Your task to perform on an android device: Open Chrome and go to the settings page Image 0: 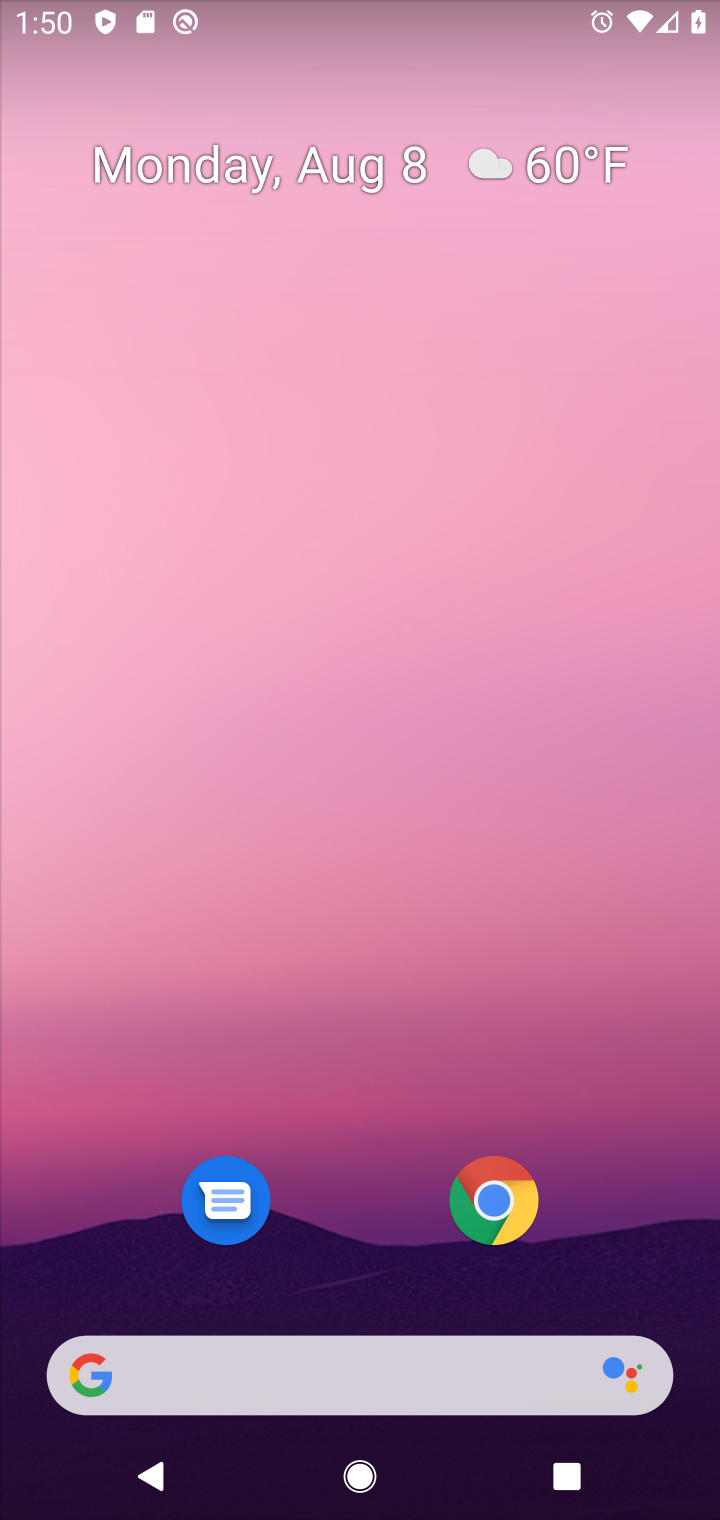
Step 0: click (492, 1191)
Your task to perform on an android device: Open Chrome and go to the settings page Image 1: 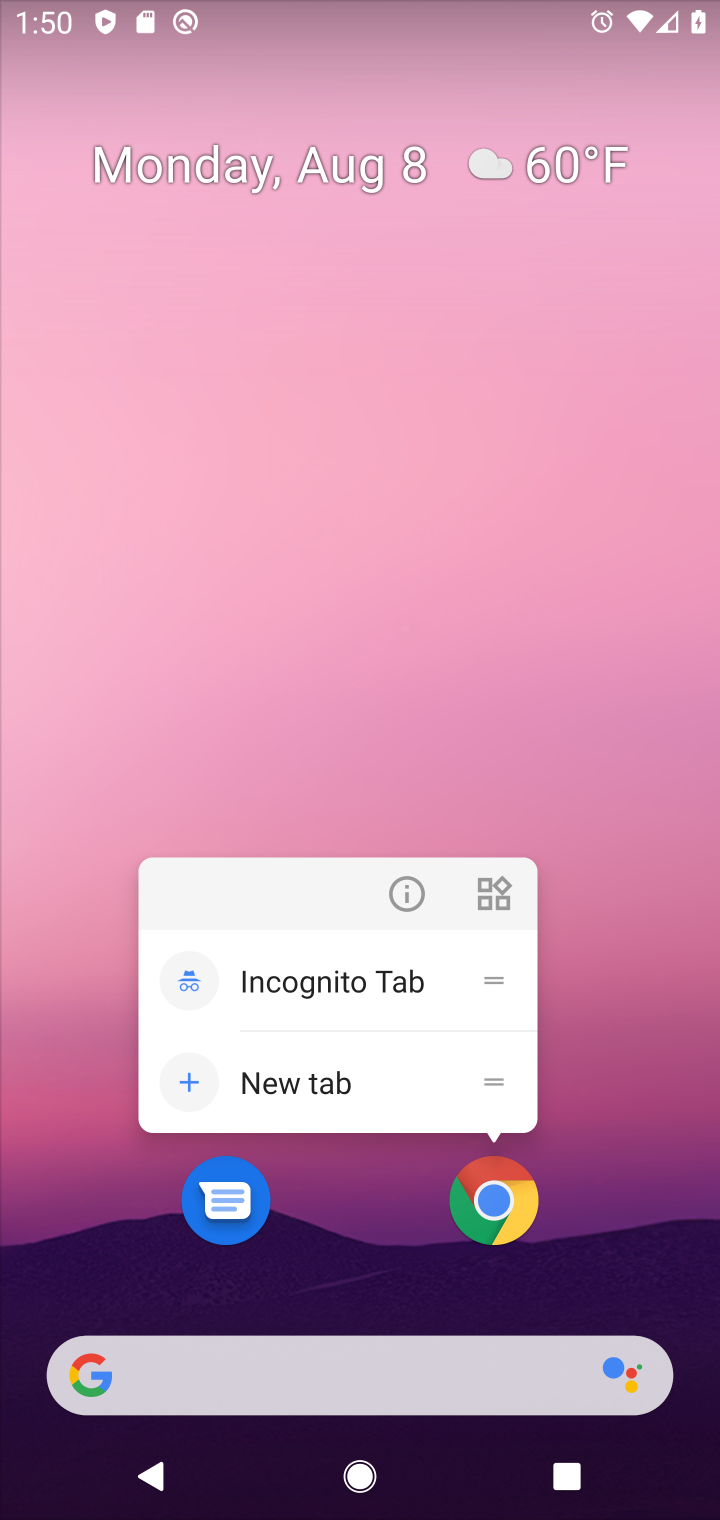
Step 1: click (583, 1266)
Your task to perform on an android device: Open Chrome and go to the settings page Image 2: 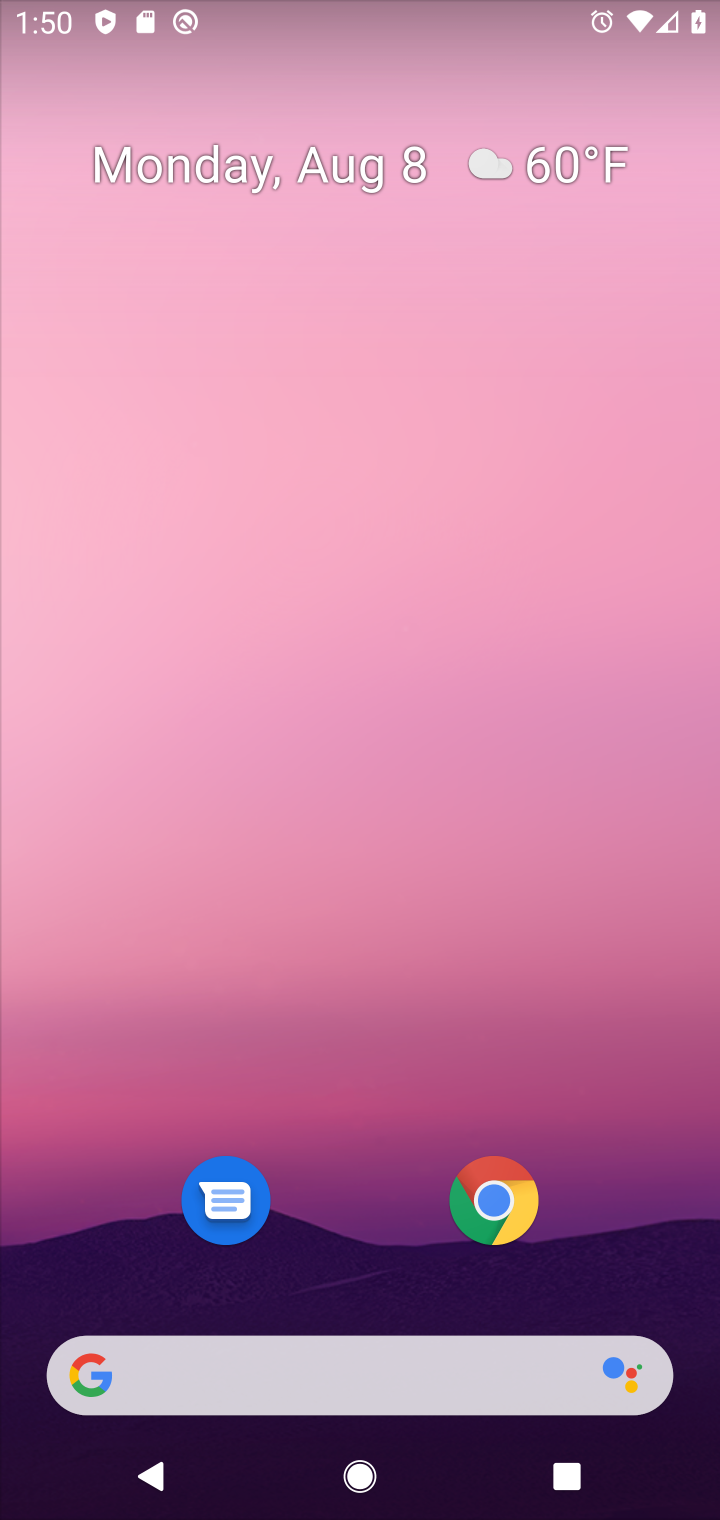
Step 2: drag from (633, 1280) to (580, 260)
Your task to perform on an android device: Open Chrome and go to the settings page Image 3: 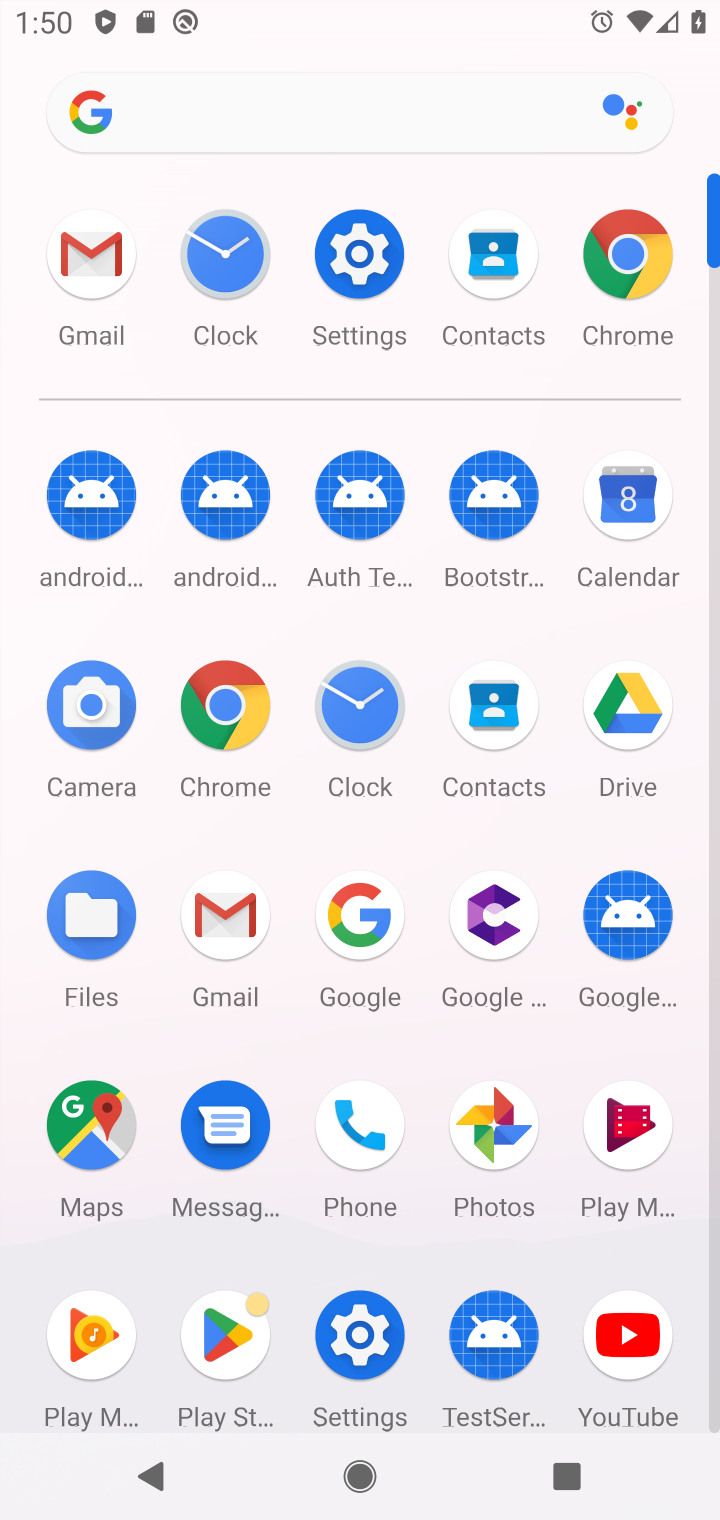
Step 3: click (622, 264)
Your task to perform on an android device: Open Chrome and go to the settings page Image 4: 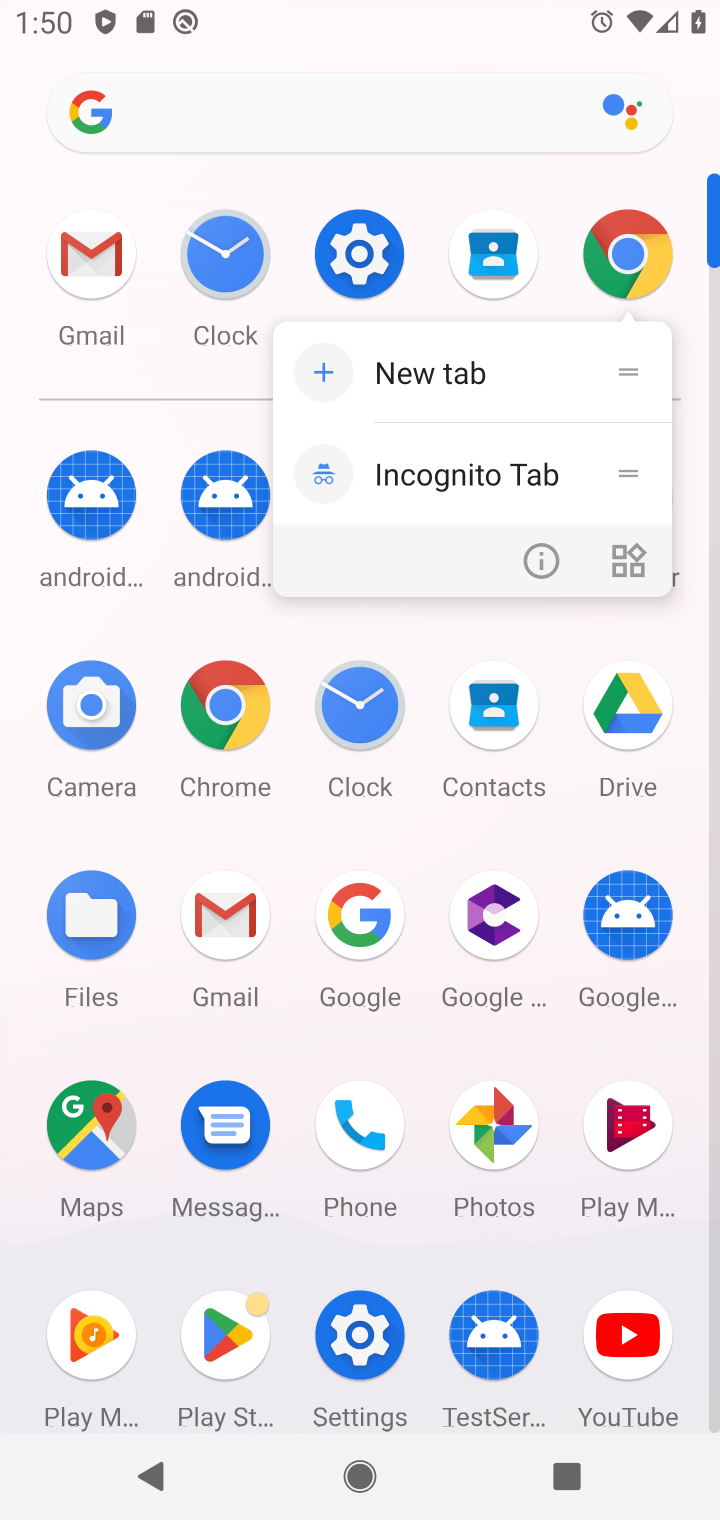
Step 4: click (626, 262)
Your task to perform on an android device: Open Chrome and go to the settings page Image 5: 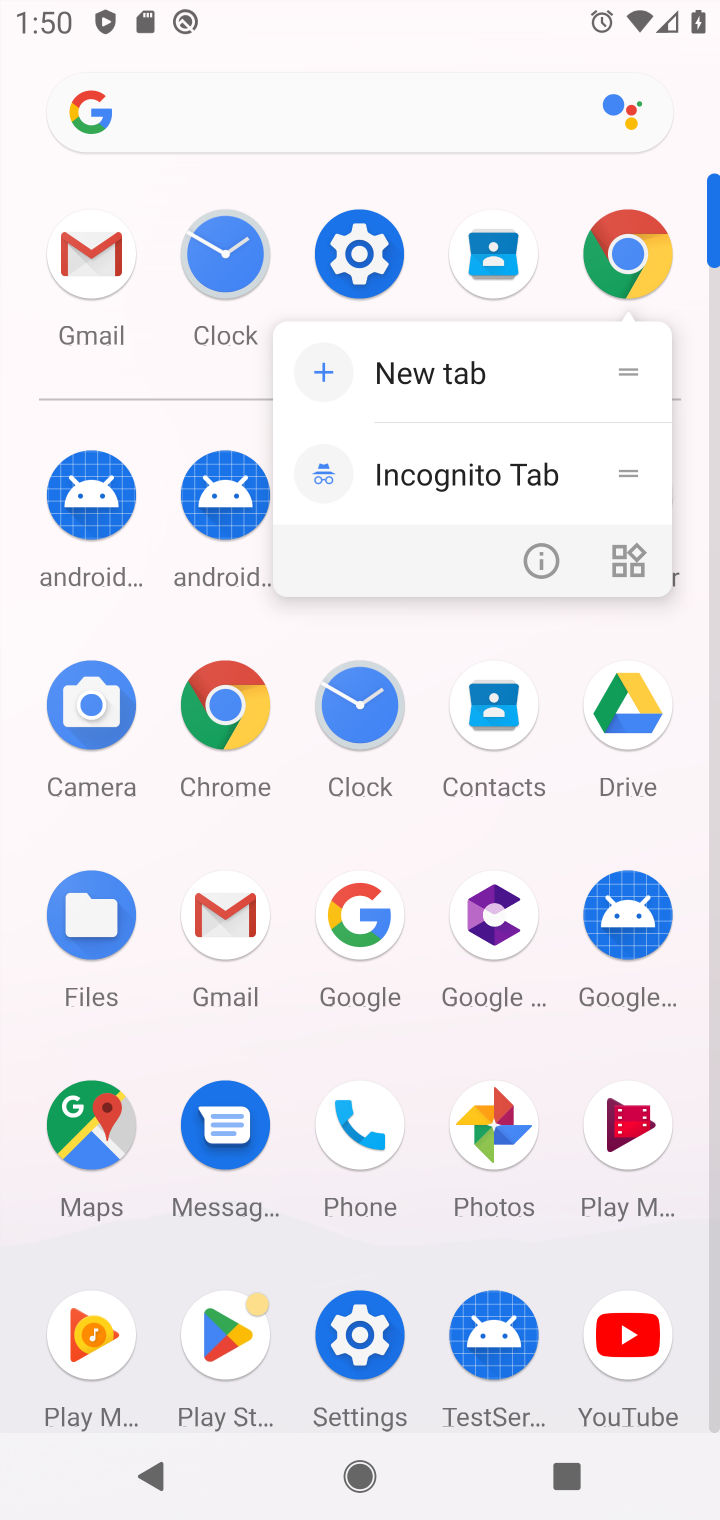
Step 5: click (233, 719)
Your task to perform on an android device: Open Chrome and go to the settings page Image 6: 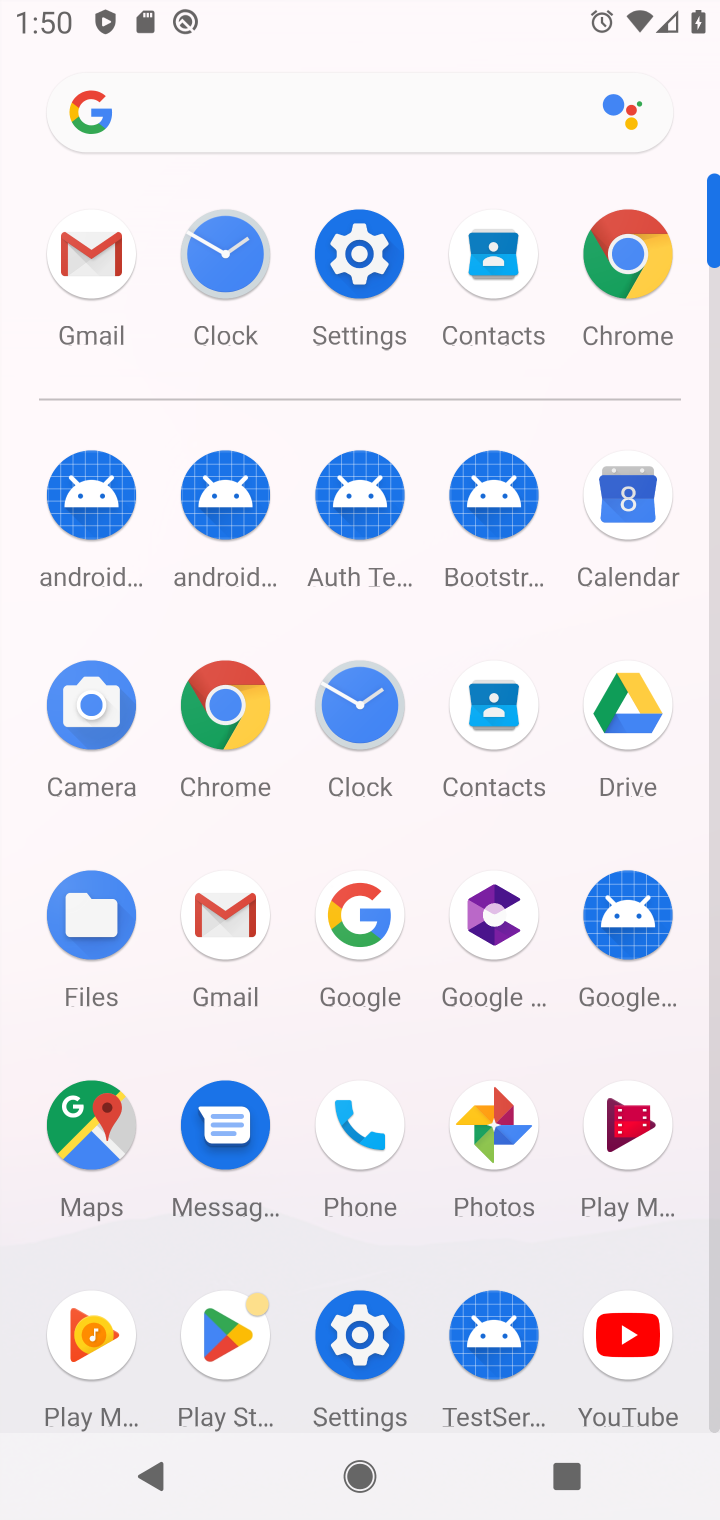
Step 6: click (232, 706)
Your task to perform on an android device: Open Chrome and go to the settings page Image 7: 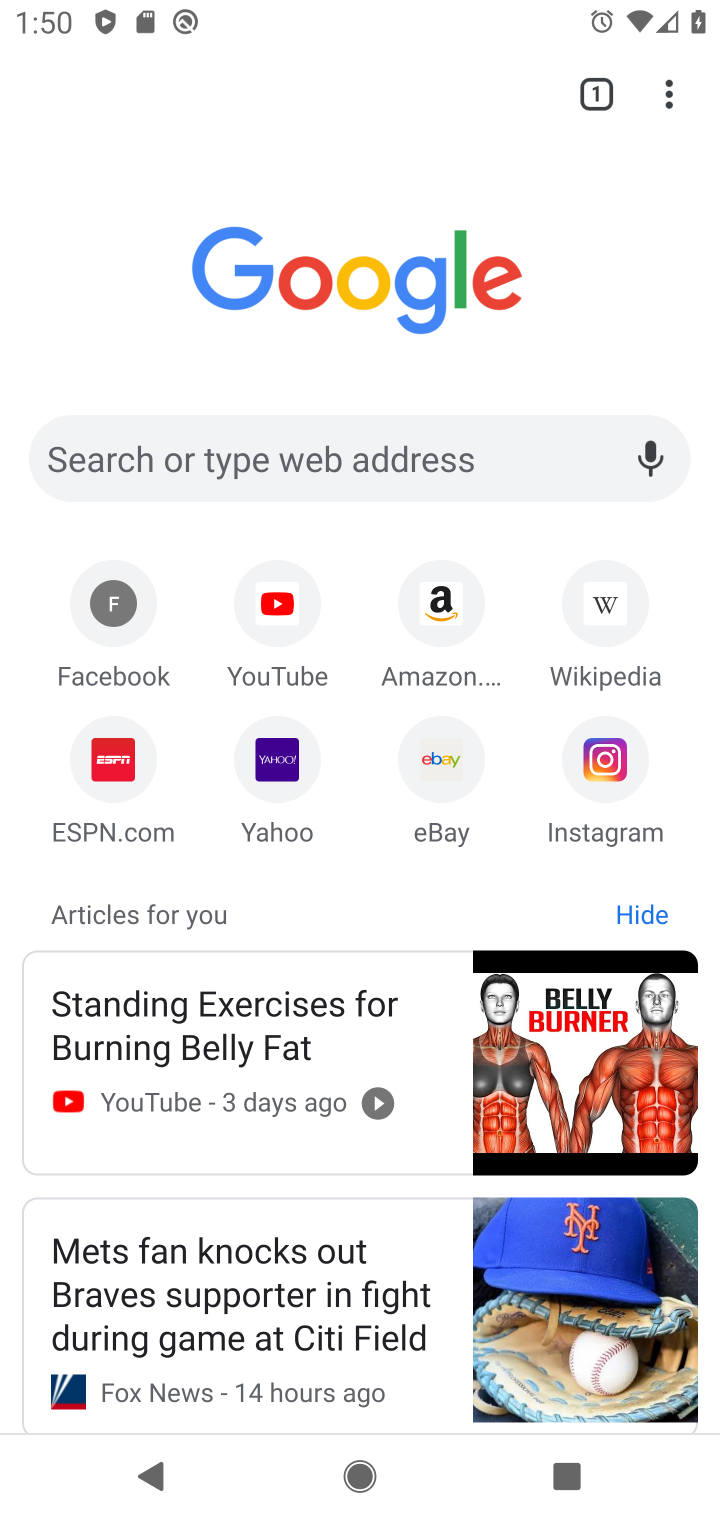
Step 7: click (670, 88)
Your task to perform on an android device: Open Chrome and go to the settings page Image 8: 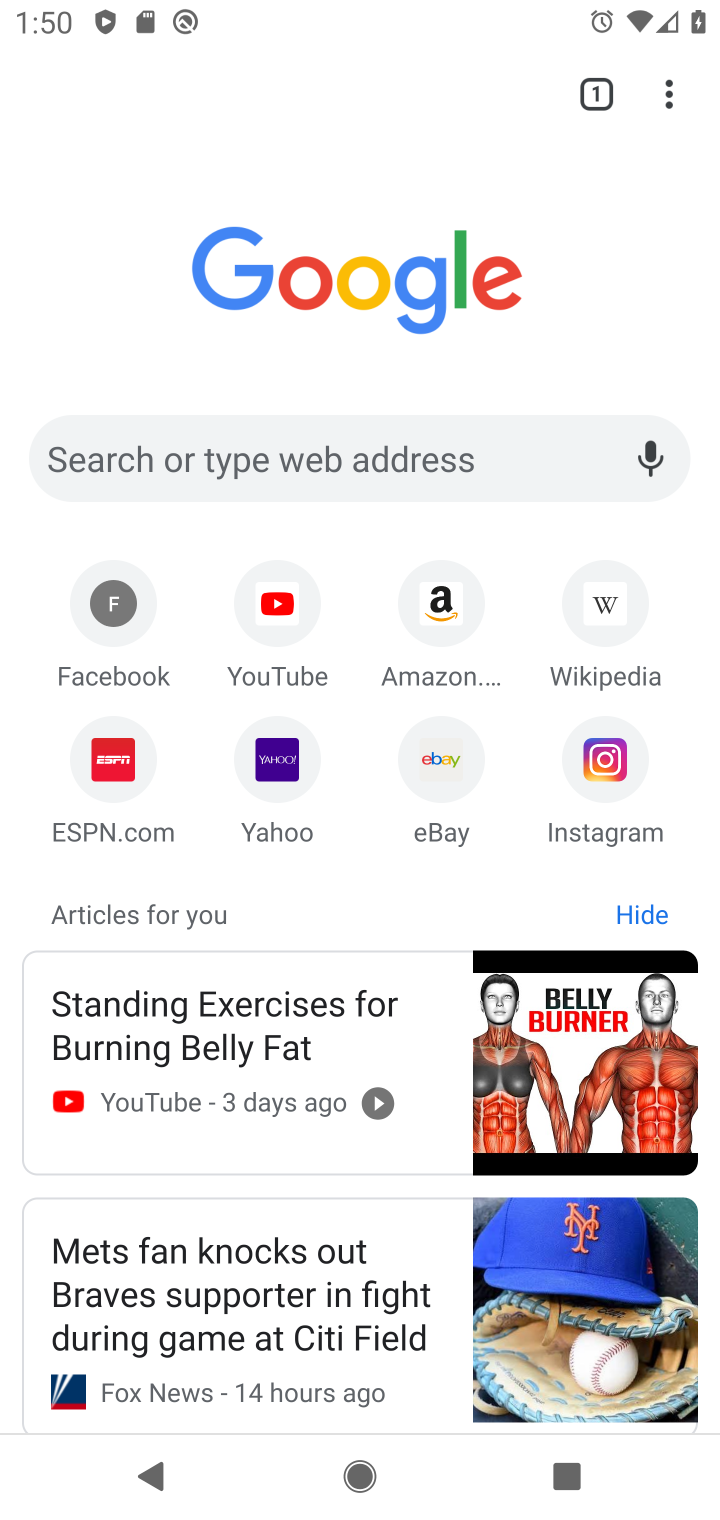
Step 8: click (672, 94)
Your task to perform on an android device: Open Chrome and go to the settings page Image 9: 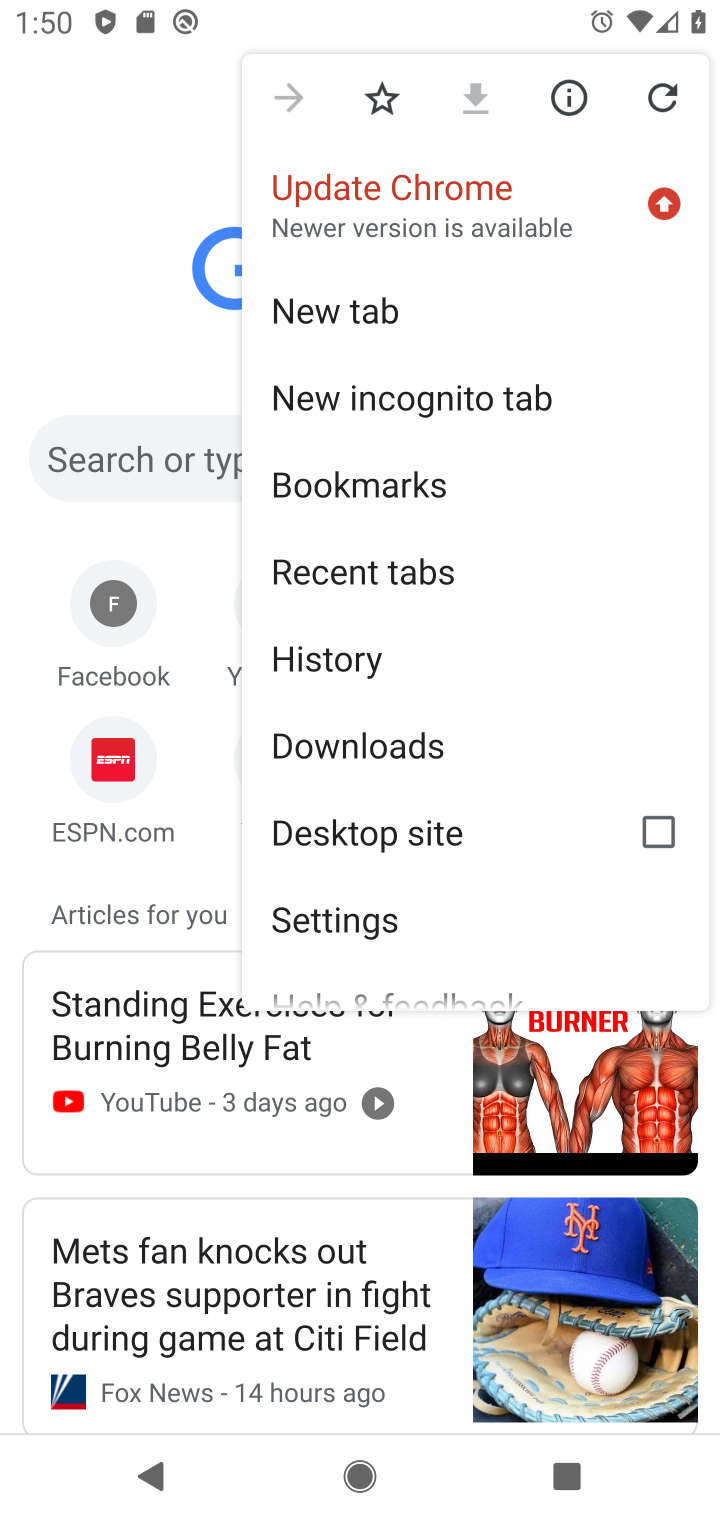
Step 9: click (403, 913)
Your task to perform on an android device: Open Chrome and go to the settings page Image 10: 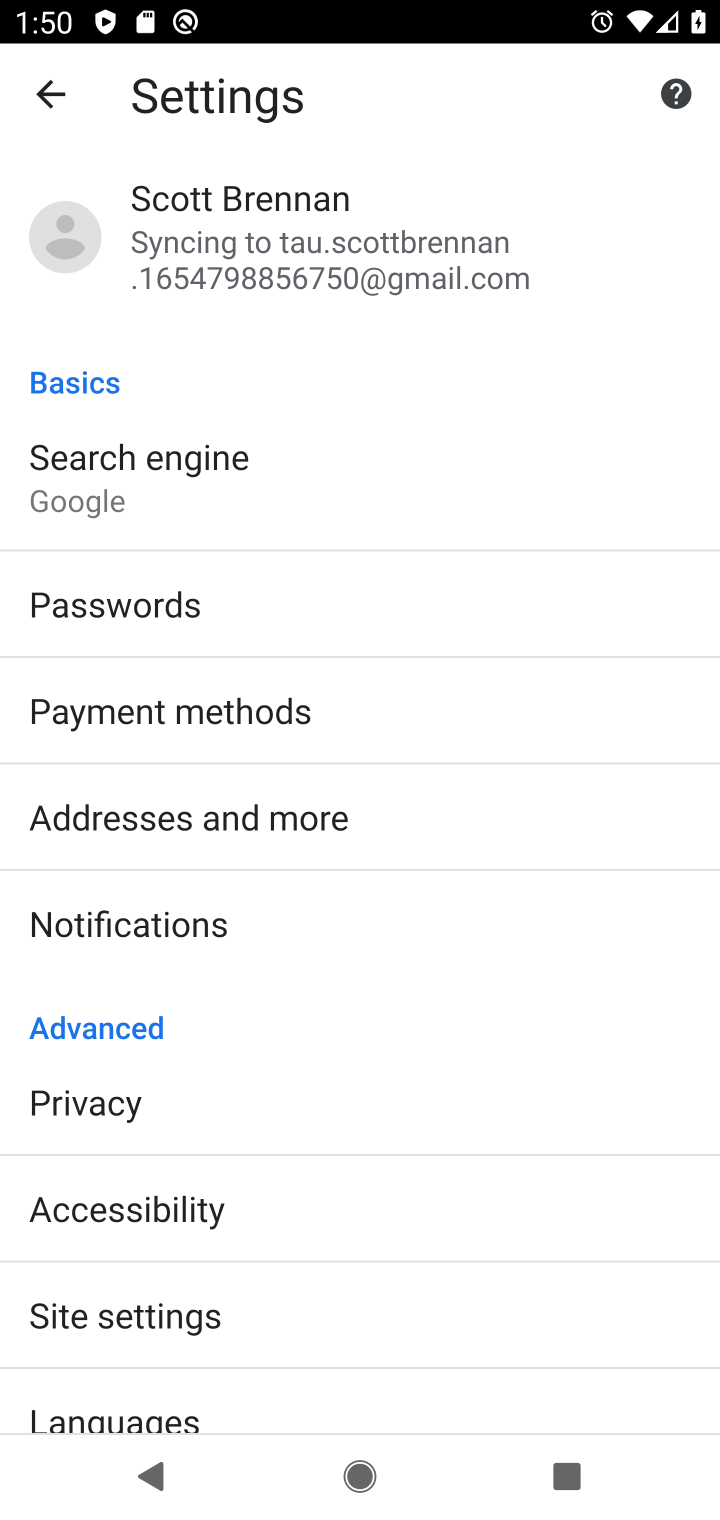
Step 10: task complete